Your task to perform on an android device: Go to network settings Image 0: 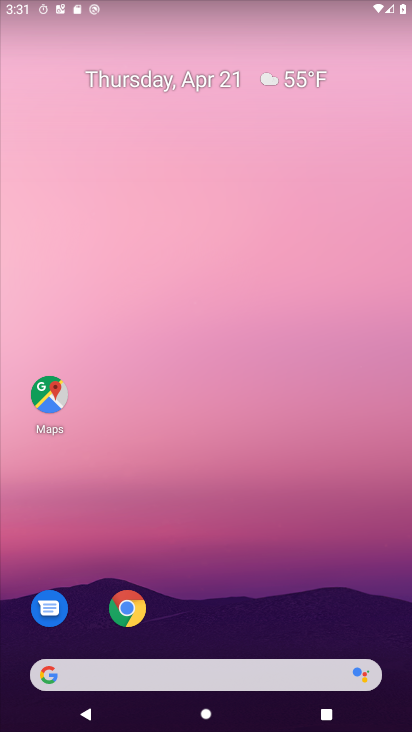
Step 0: drag from (258, 616) to (144, 52)
Your task to perform on an android device: Go to network settings Image 1: 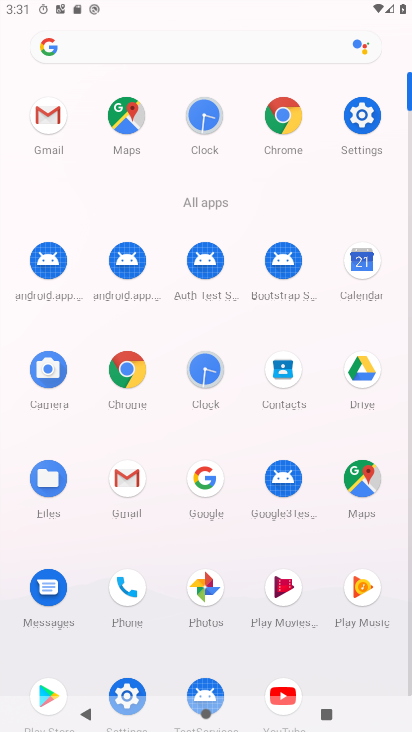
Step 1: click (358, 131)
Your task to perform on an android device: Go to network settings Image 2: 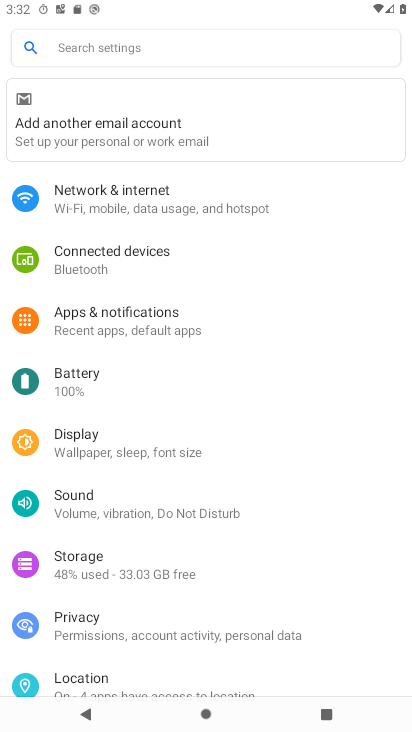
Step 2: click (131, 184)
Your task to perform on an android device: Go to network settings Image 3: 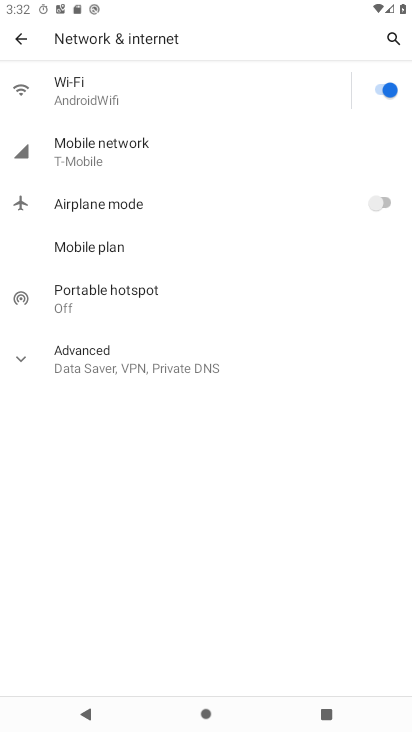
Step 3: task complete